Your task to perform on an android device: manage bookmarks in the chrome app Image 0: 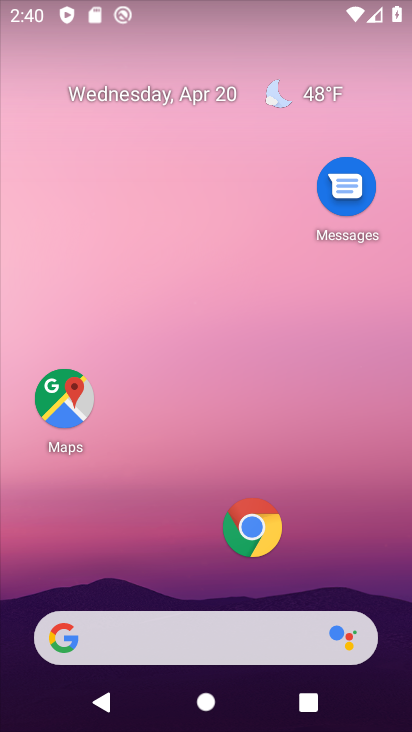
Step 0: drag from (192, 637) to (310, 209)
Your task to perform on an android device: manage bookmarks in the chrome app Image 1: 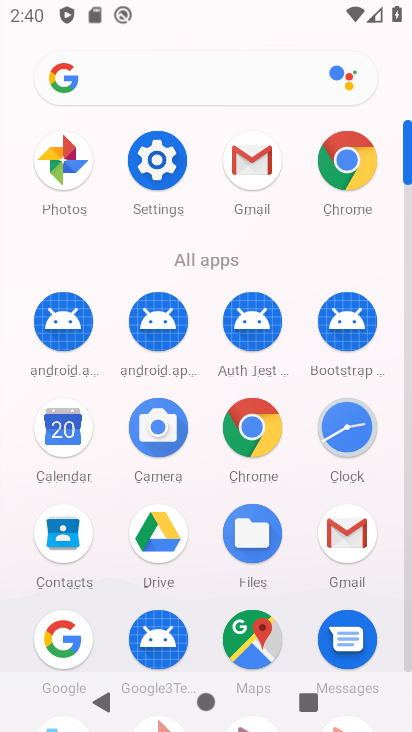
Step 1: click (354, 169)
Your task to perform on an android device: manage bookmarks in the chrome app Image 2: 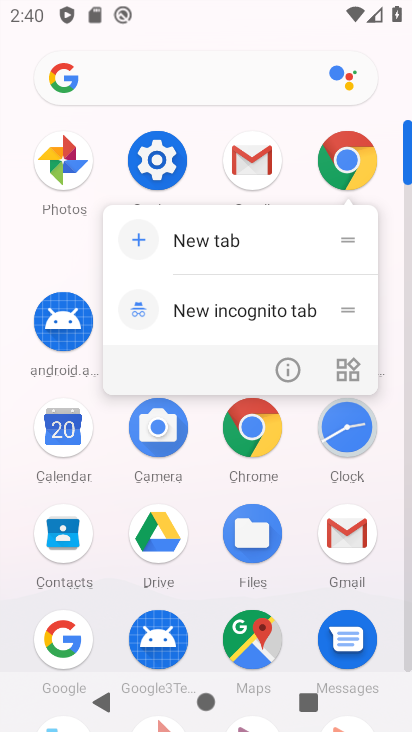
Step 2: click (329, 155)
Your task to perform on an android device: manage bookmarks in the chrome app Image 3: 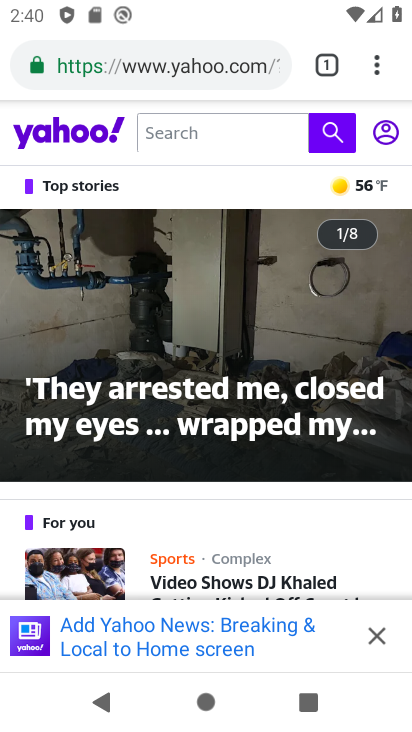
Step 3: click (377, 71)
Your task to perform on an android device: manage bookmarks in the chrome app Image 4: 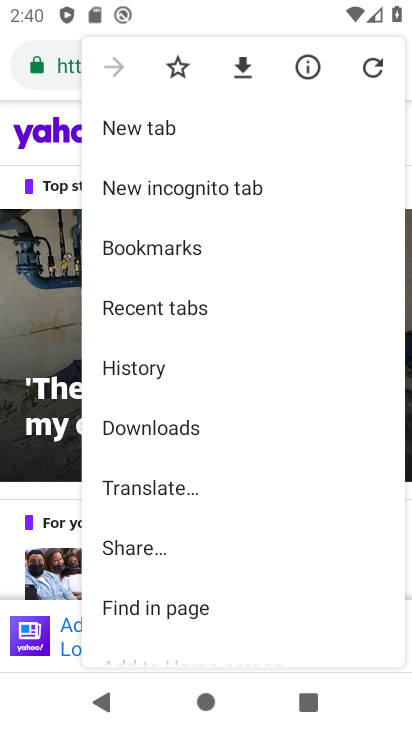
Step 4: click (165, 244)
Your task to perform on an android device: manage bookmarks in the chrome app Image 5: 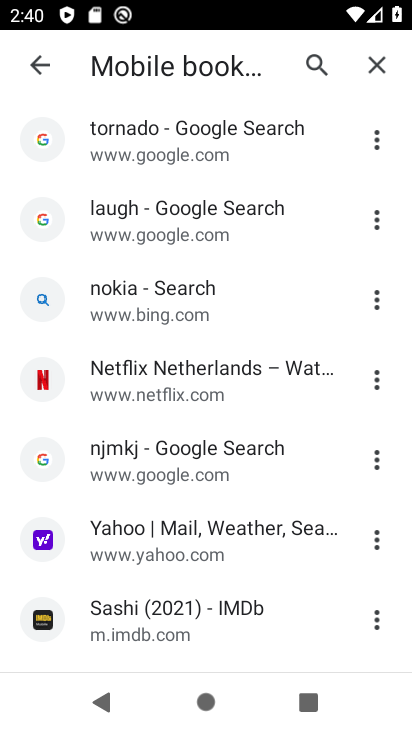
Step 5: click (377, 136)
Your task to perform on an android device: manage bookmarks in the chrome app Image 6: 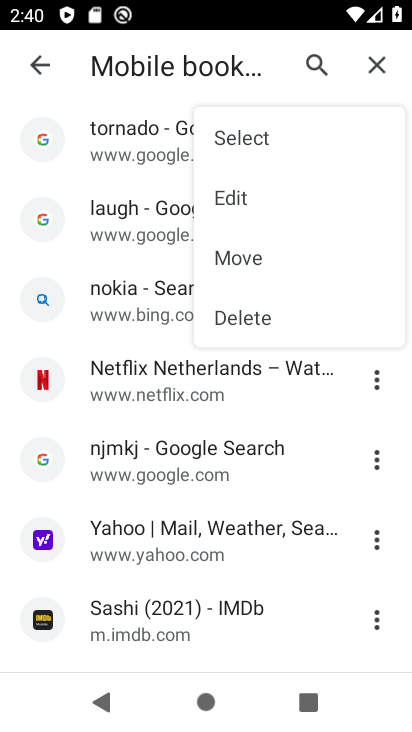
Step 6: click (242, 316)
Your task to perform on an android device: manage bookmarks in the chrome app Image 7: 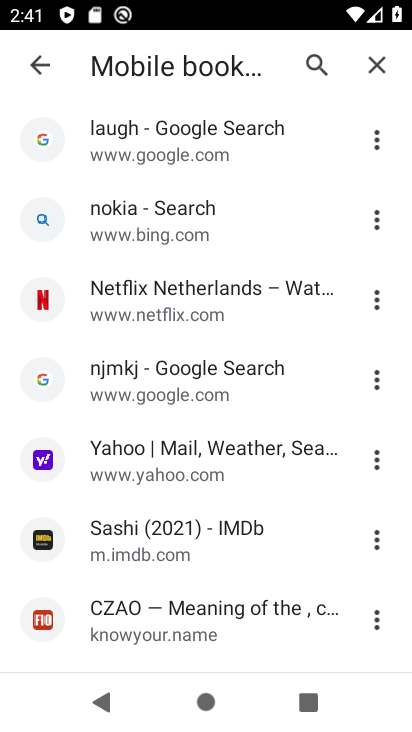
Step 7: task complete